Your task to perform on an android device: show emergency info Image 0: 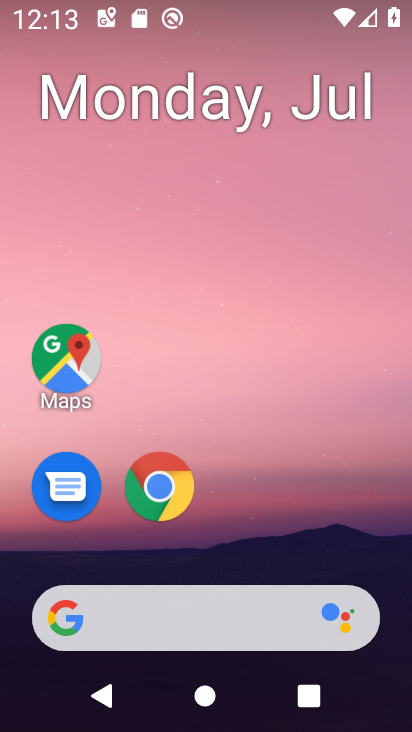
Step 0: press home button
Your task to perform on an android device: show emergency info Image 1: 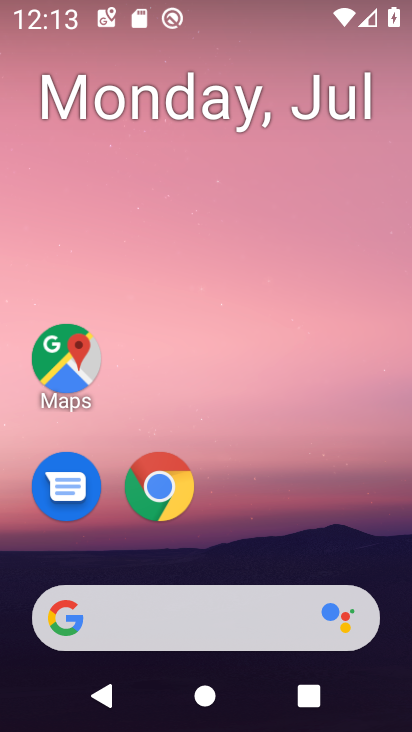
Step 1: drag from (362, 539) to (341, 83)
Your task to perform on an android device: show emergency info Image 2: 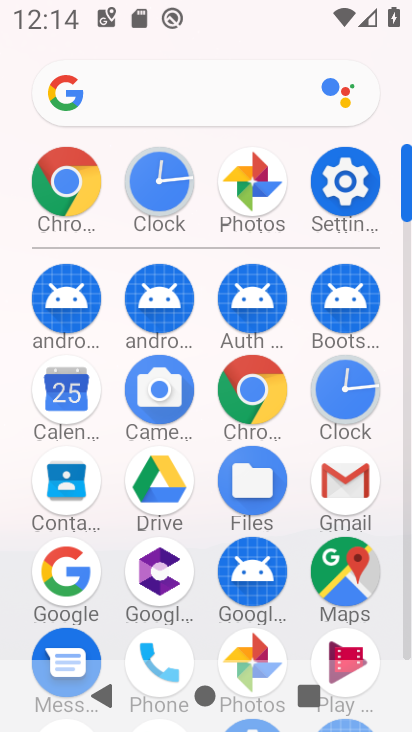
Step 2: click (347, 190)
Your task to perform on an android device: show emergency info Image 3: 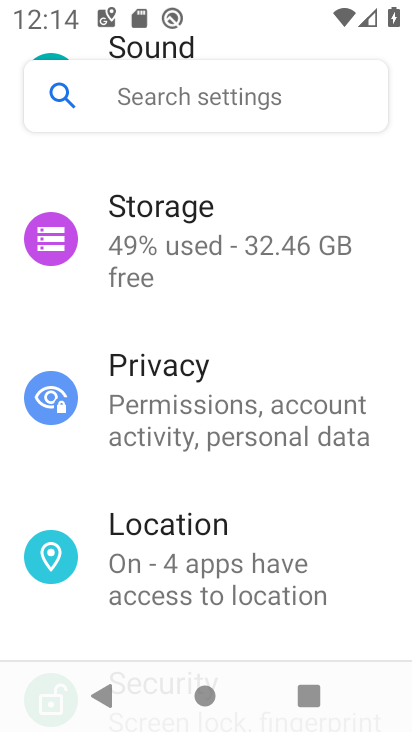
Step 3: drag from (354, 510) to (354, 390)
Your task to perform on an android device: show emergency info Image 4: 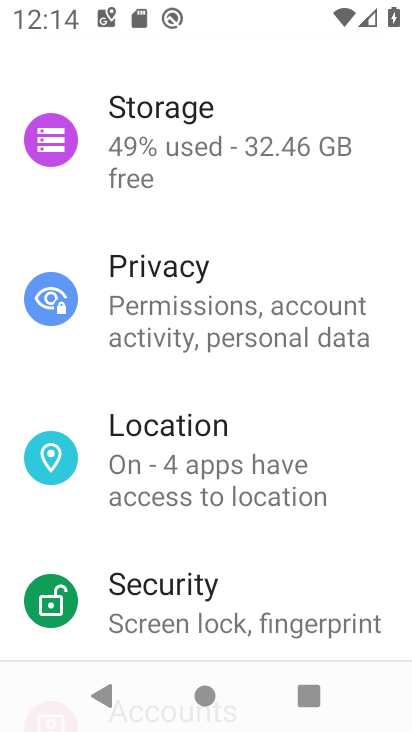
Step 4: drag from (360, 551) to (362, 402)
Your task to perform on an android device: show emergency info Image 5: 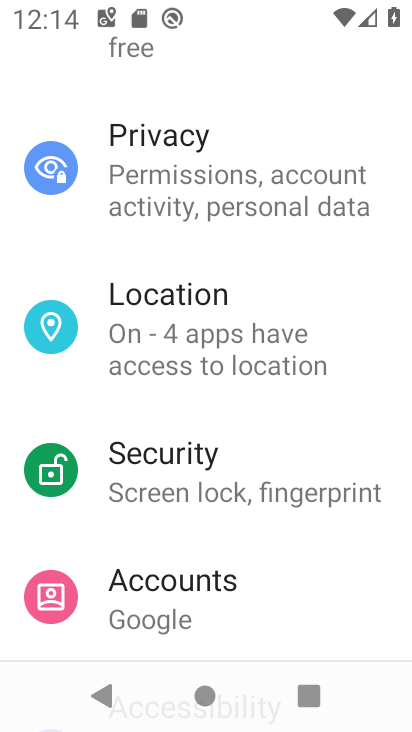
Step 5: drag from (354, 584) to (354, 496)
Your task to perform on an android device: show emergency info Image 6: 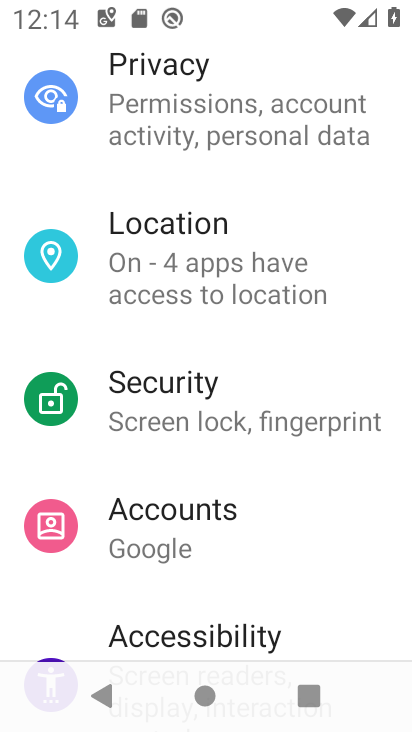
Step 6: drag from (353, 604) to (347, 499)
Your task to perform on an android device: show emergency info Image 7: 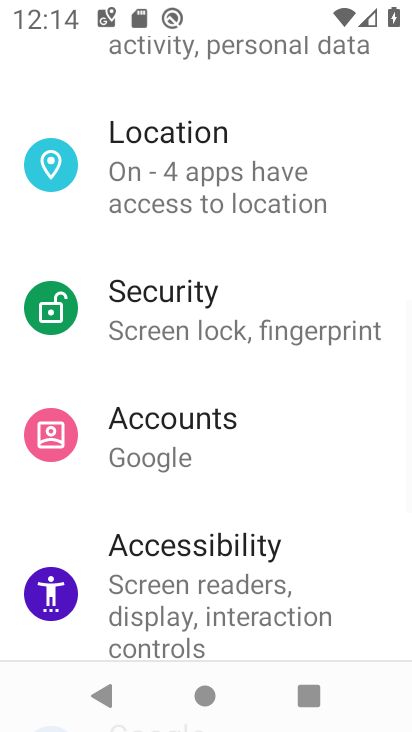
Step 7: drag from (346, 610) to (342, 507)
Your task to perform on an android device: show emergency info Image 8: 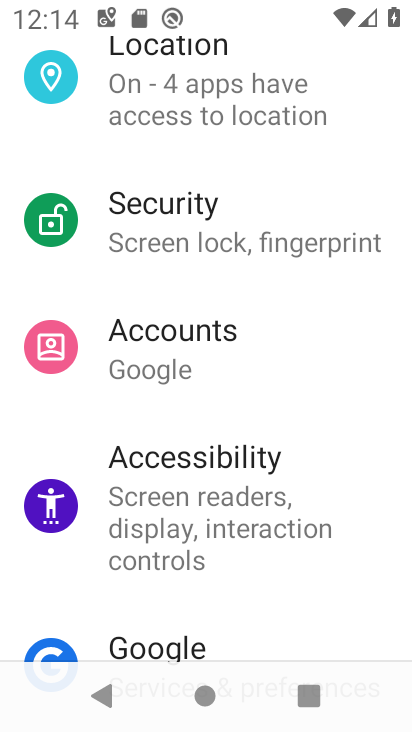
Step 8: drag from (342, 599) to (341, 496)
Your task to perform on an android device: show emergency info Image 9: 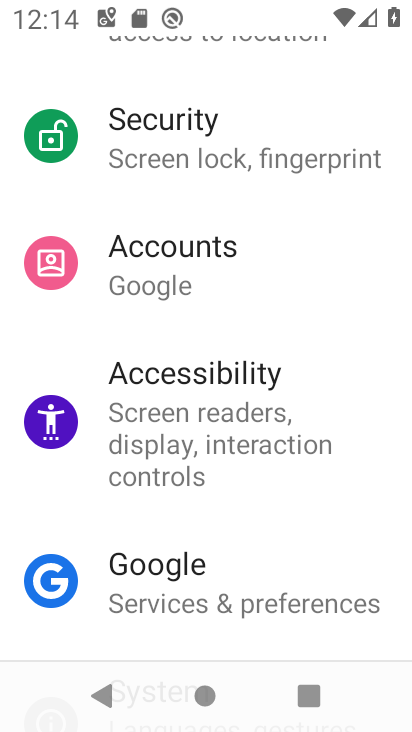
Step 9: drag from (341, 636) to (332, 497)
Your task to perform on an android device: show emergency info Image 10: 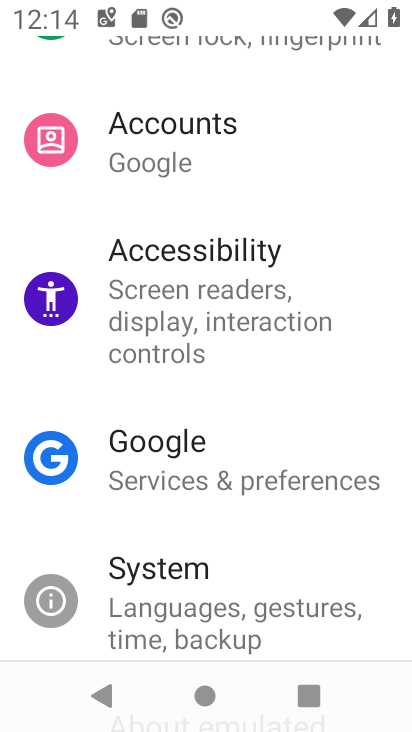
Step 10: drag from (369, 524) to (351, 413)
Your task to perform on an android device: show emergency info Image 11: 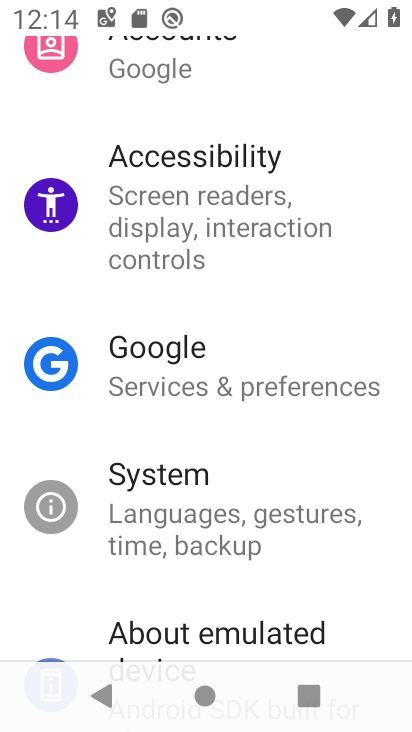
Step 11: drag from (340, 547) to (324, 438)
Your task to perform on an android device: show emergency info Image 12: 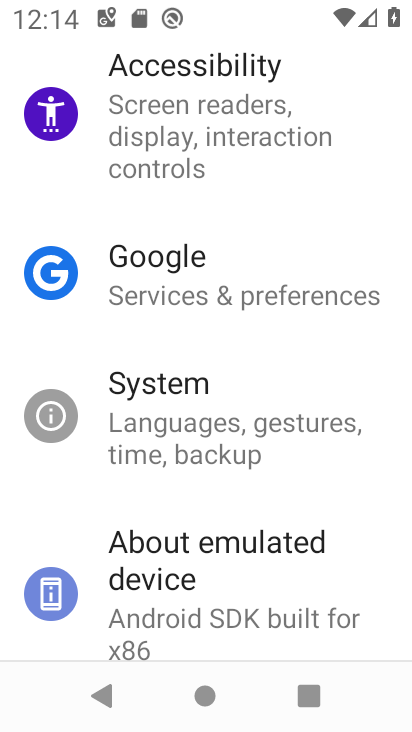
Step 12: drag from (364, 524) to (358, 429)
Your task to perform on an android device: show emergency info Image 13: 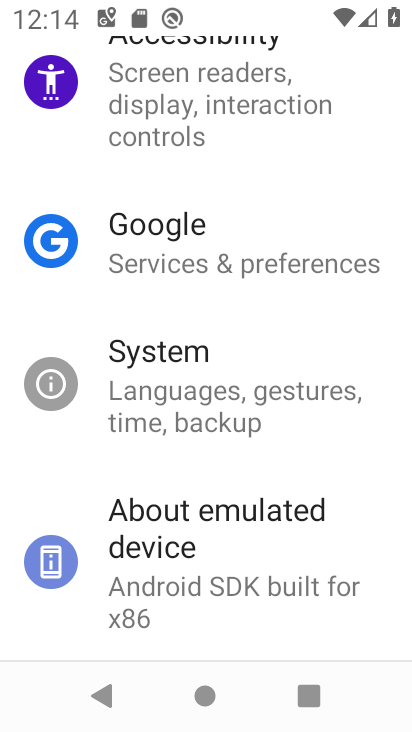
Step 13: drag from (354, 298) to (359, 397)
Your task to perform on an android device: show emergency info Image 14: 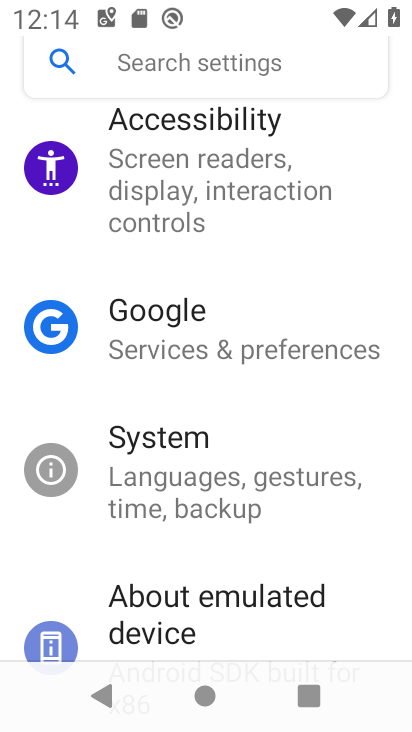
Step 14: drag from (359, 256) to (357, 359)
Your task to perform on an android device: show emergency info Image 15: 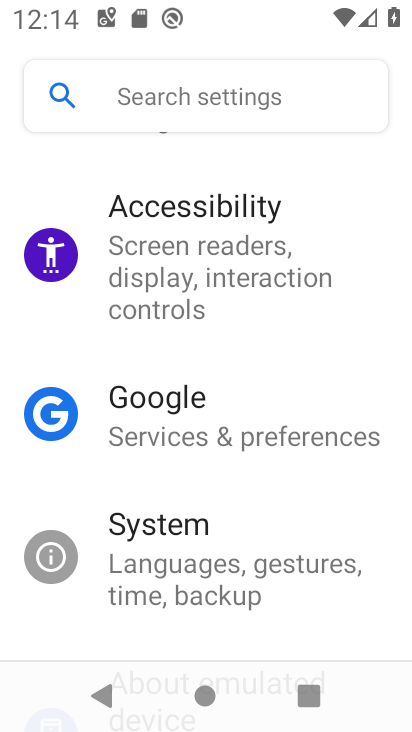
Step 15: drag from (362, 227) to (356, 348)
Your task to perform on an android device: show emergency info Image 16: 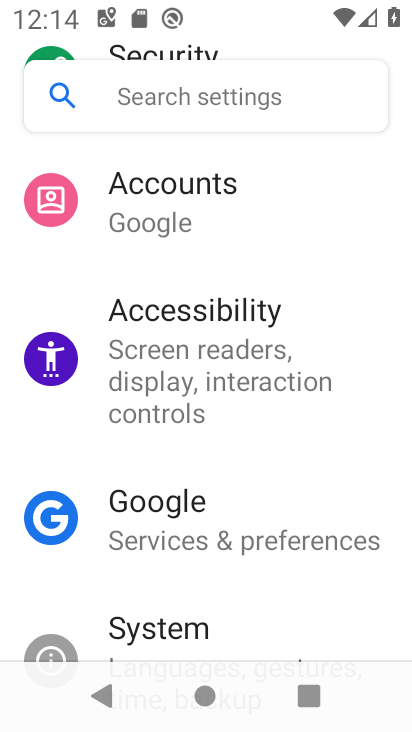
Step 16: drag from (356, 247) to (357, 354)
Your task to perform on an android device: show emergency info Image 17: 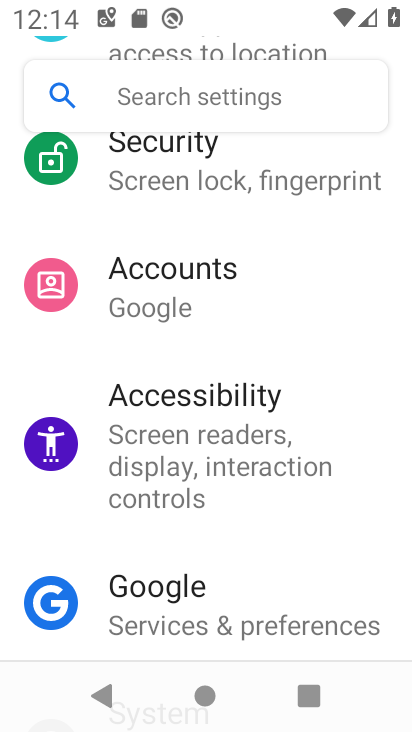
Step 17: drag from (353, 284) to (355, 385)
Your task to perform on an android device: show emergency info Image 18: 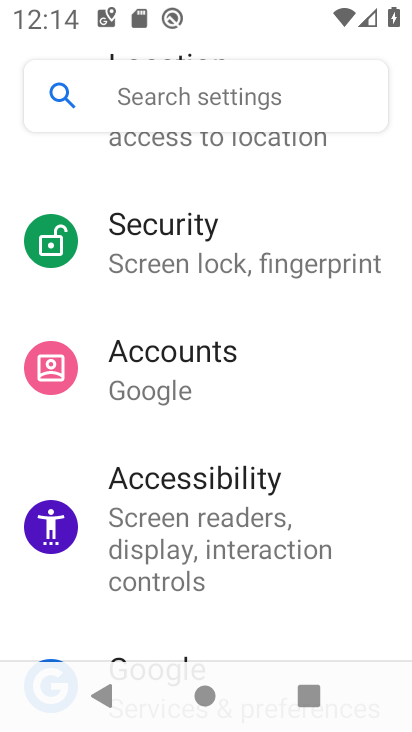
Step 18: drag from (355, 276) to (356, 393)
Your task to perform on an android device: show emergency info Image 19: 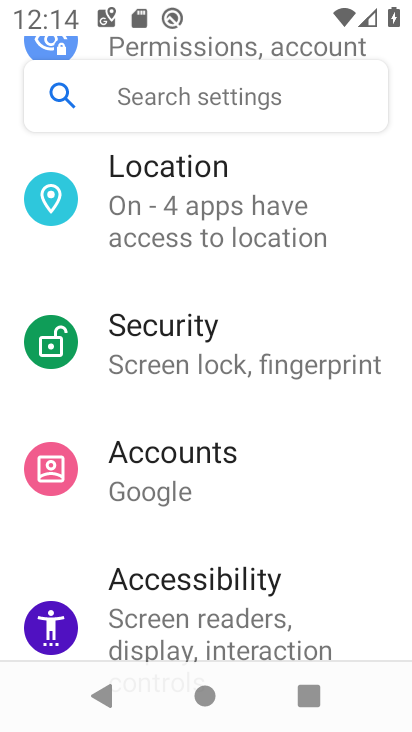
Step 19: drag from (339, 479) to (338, 392)
Your task to perform on an android device: show emergency info Image 20: 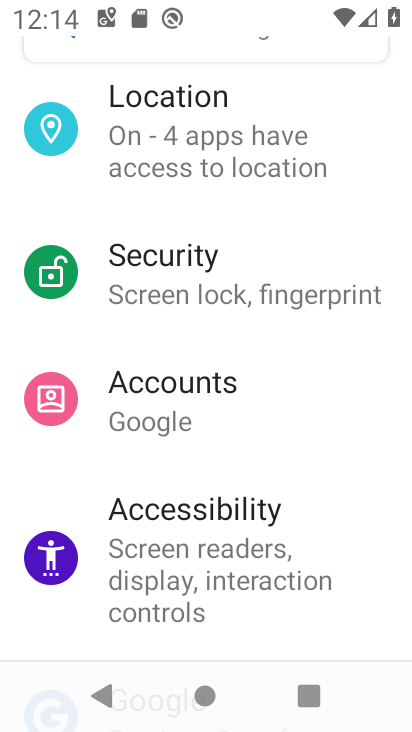
Step 20: drag from (344, 522) to (347, 391)
Your task to perform on an android device: show emergency info Image 21: 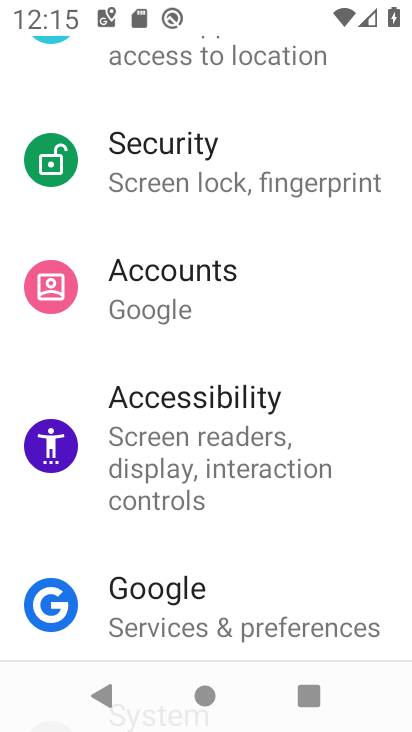
Step 21: drag from (341, 546) to (340, 373)
Your task to perform on an android device: show emergency info Image 22: 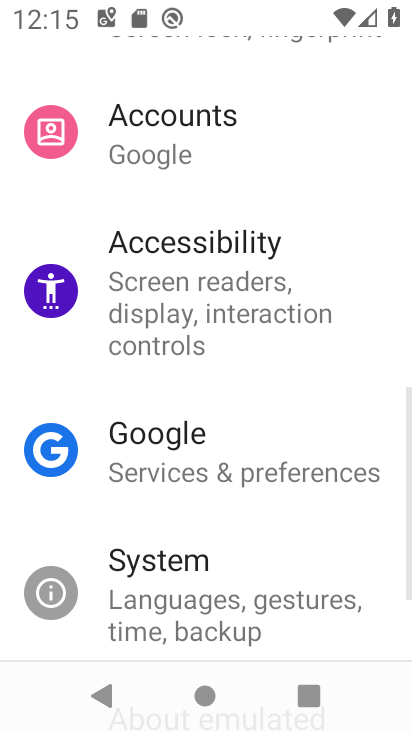
Step 22: drag from (354, 601) to (336, 385)
Your task to perform on an android device: show emergency info Image 23: 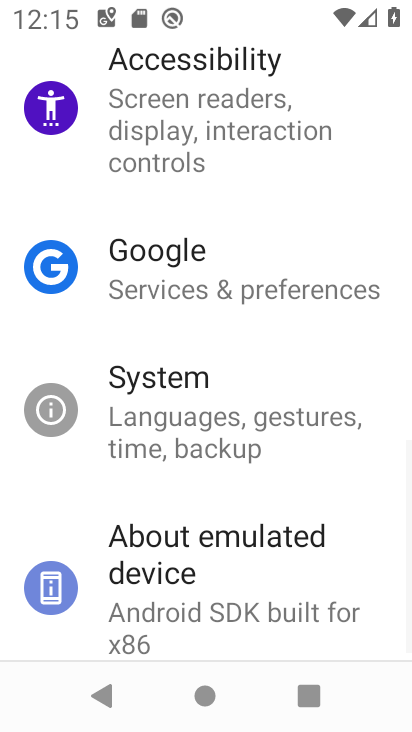
Step 23: click (337, 564)
Your task to perform on an android device: show emergency info Image 24: 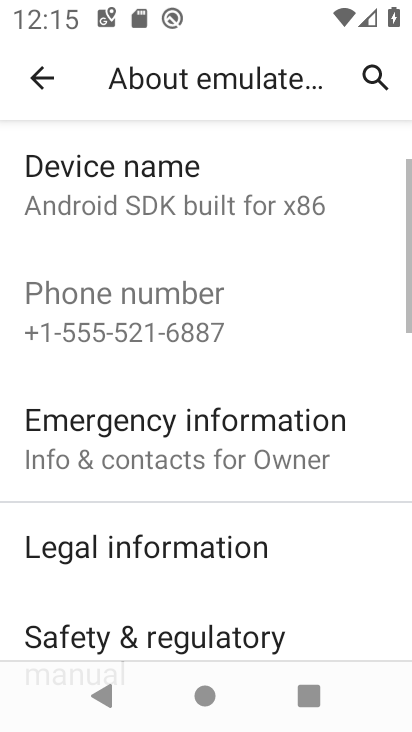
Step 24: click (277, 408)
Your task to perform on an android device: show emergency info Image 25: 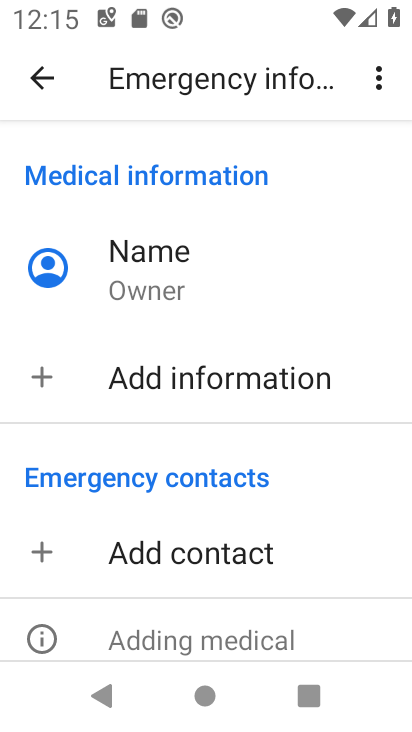
Step 25: task complete